Your task to perform on an android device: turn off location history Image 0: 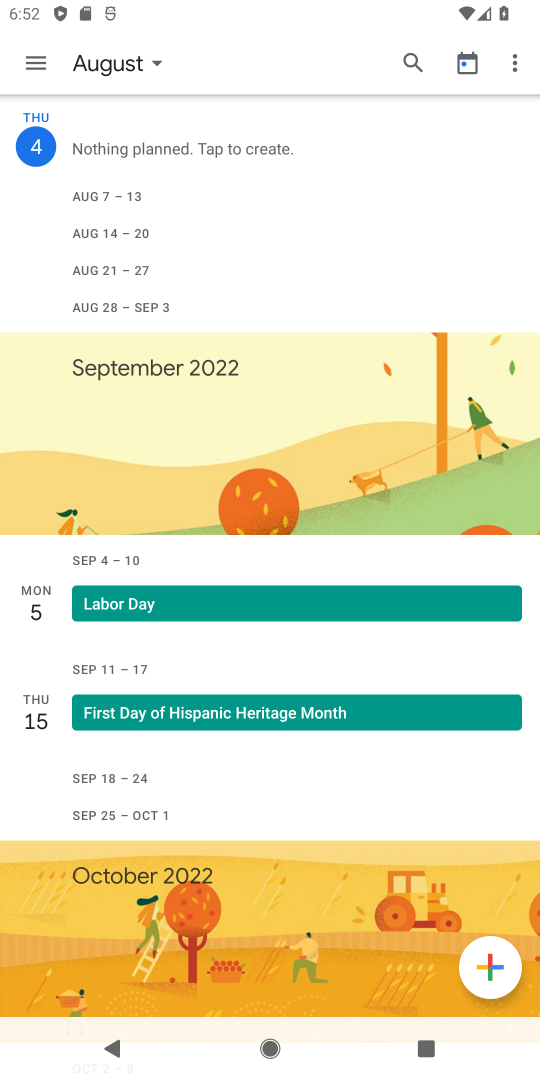
Step 0: press back button
Your task to perform on an android device: turn off location history Image 1: 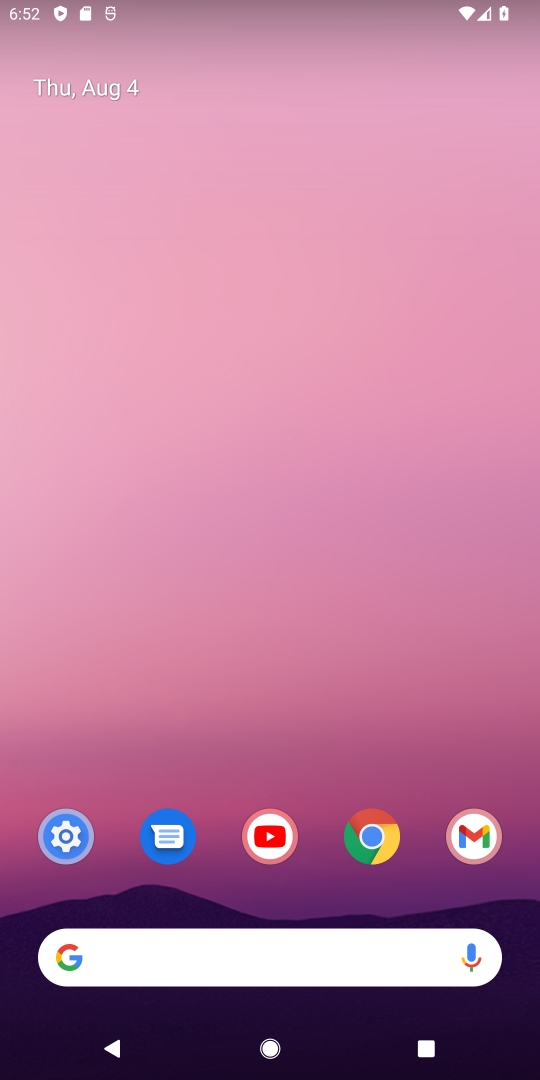
Step 1: drag from (156, 763) to (299, 5)
Your task to perform on an android device: turn off location history Image 2: 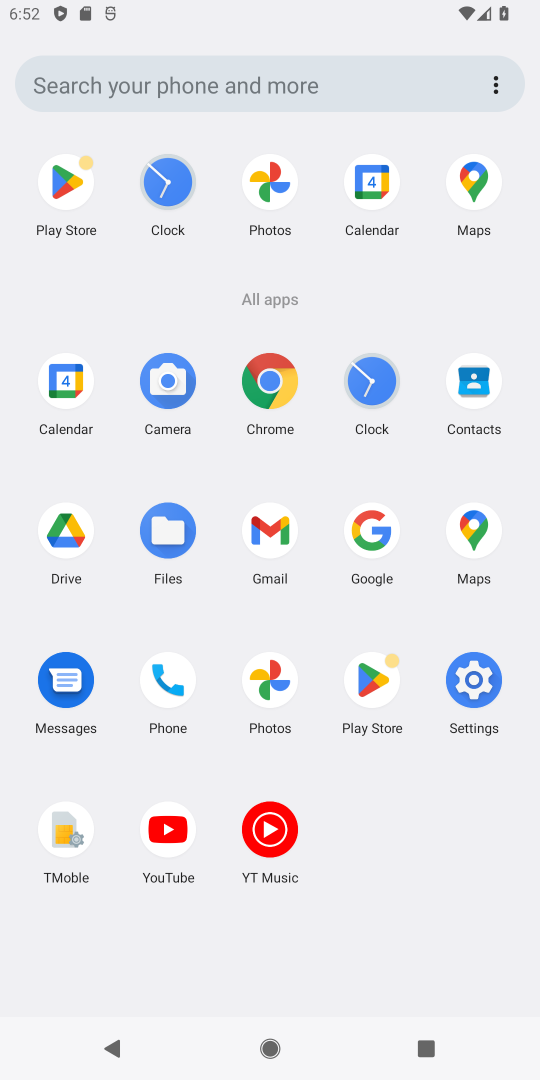
Step 2: click (462, 678)
Your task to perform on an android device: turn off location history Image 3: 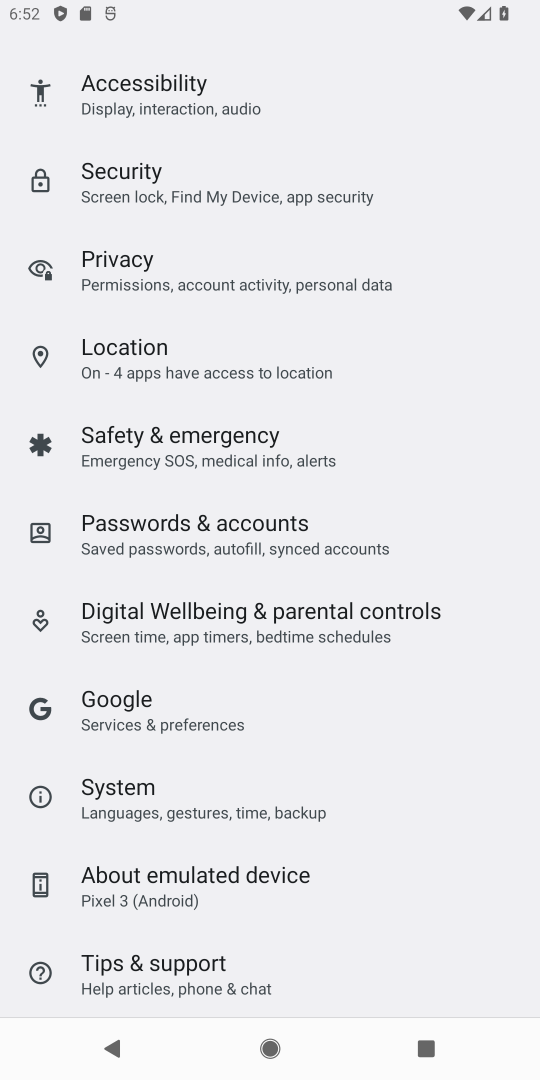
Step 3: click (205, 369)
Your task to perform on an android device: turn off location history Image 4: 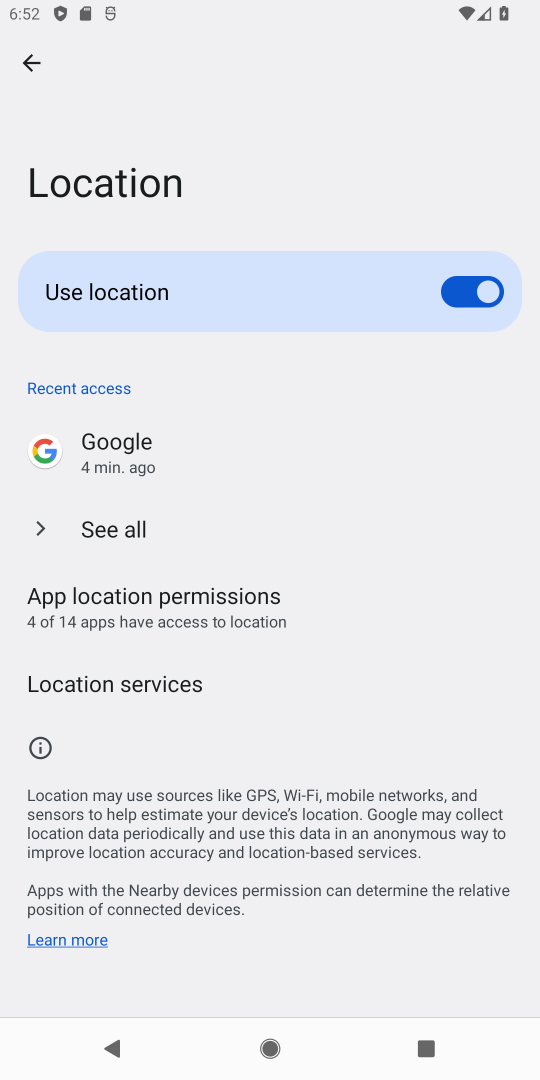
Step 4: click (154, 681)
Your task to perform on an android device: turn off location history Image 5: 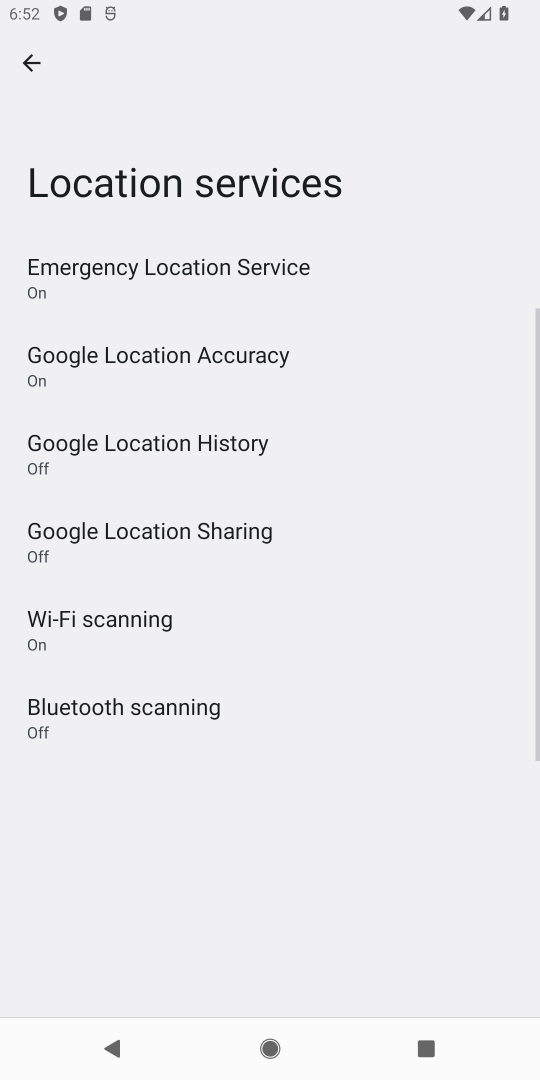
Step 5: click (127, 456)
Your task to perform on an android device: turn off location history Image 6: 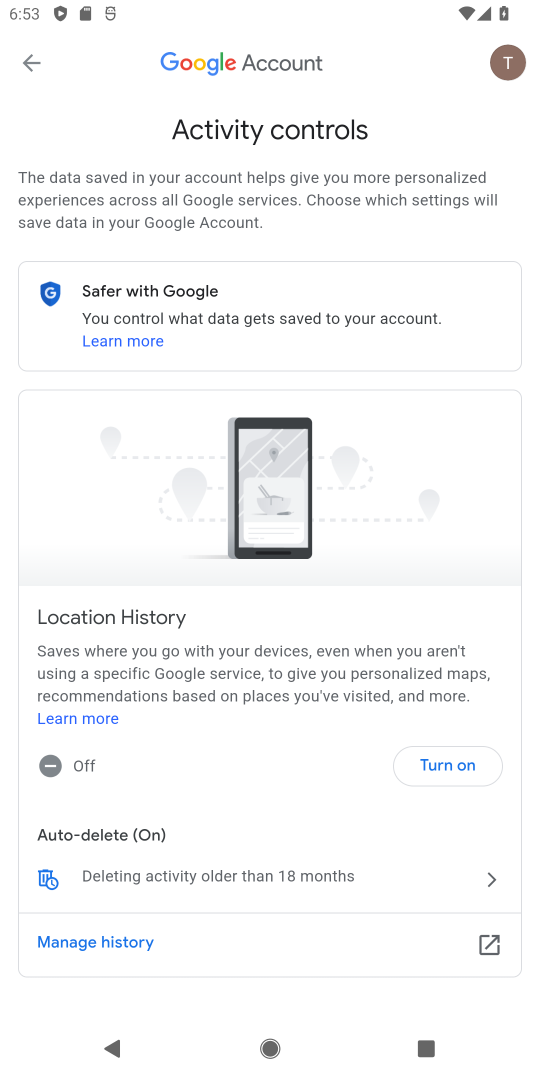
Step 6: task complete